Your task to perform on an android device: empty trash in the gmail app Image 0: 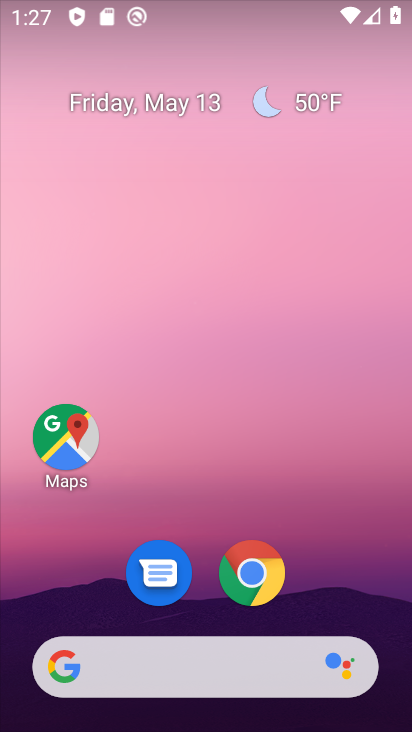
Step 0: drag from (323, 597) to (319, 189)
Your task to perform on an android device: empty trash in the gmail app Image 1: 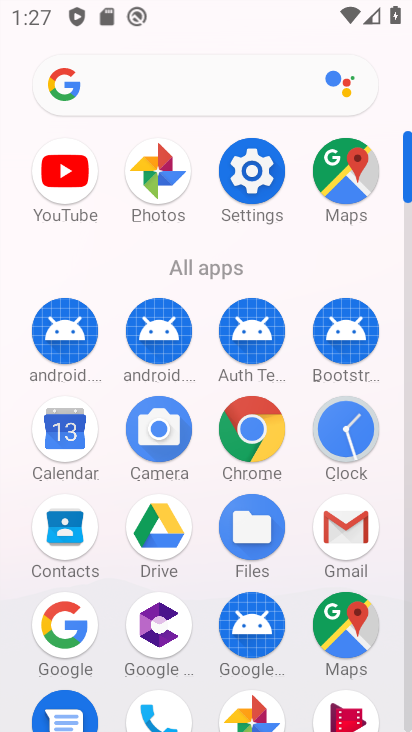
Step 1: drag from (202, 625) to (127, 156)
Your task to perform on an android device: empty trash in the gmail app Image 2: 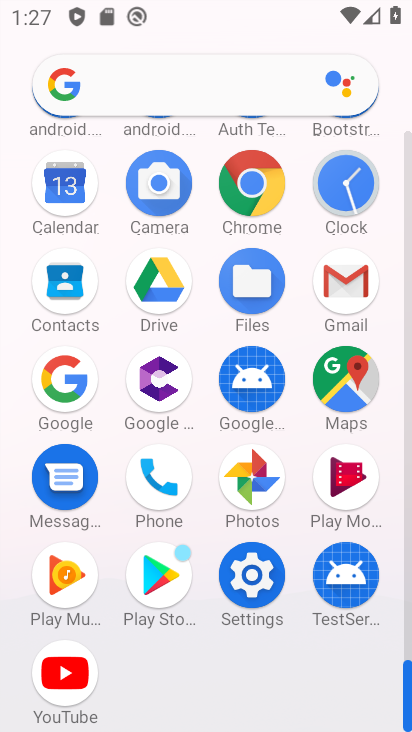
Step 2: click (248, 592)
Your task to perform on an android device: empty trash in the gmail app Image 3: 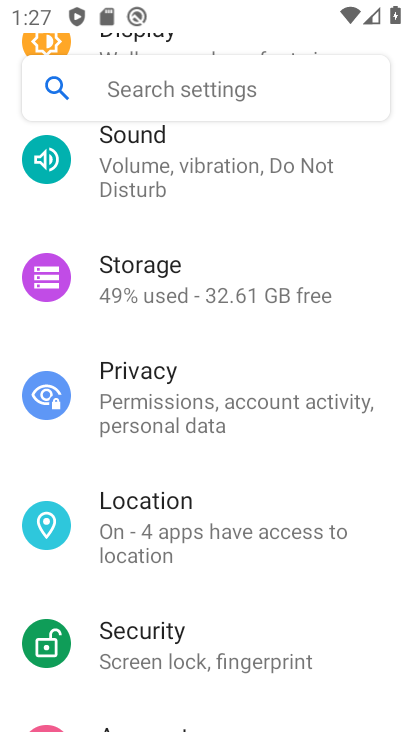
Step 3: drag from (145, 214) to (86, 503)
Your task to perform on an android device: empty trash in the gmail app Image 4: 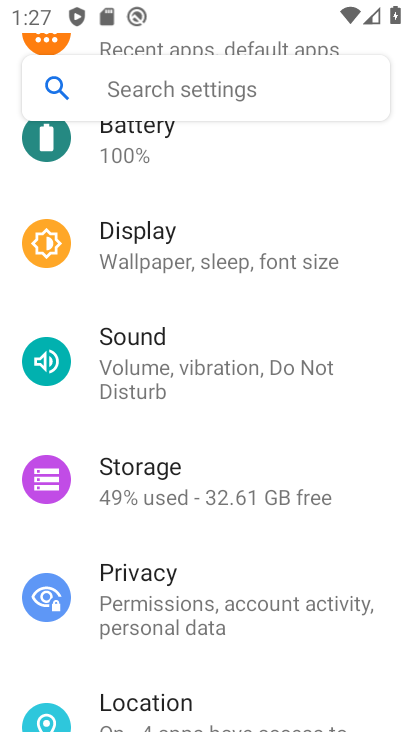
Step 4: drag from (226, 221) to (180, 680)
Your task to perform on an android device: empty trash in the gmail app Image 5: 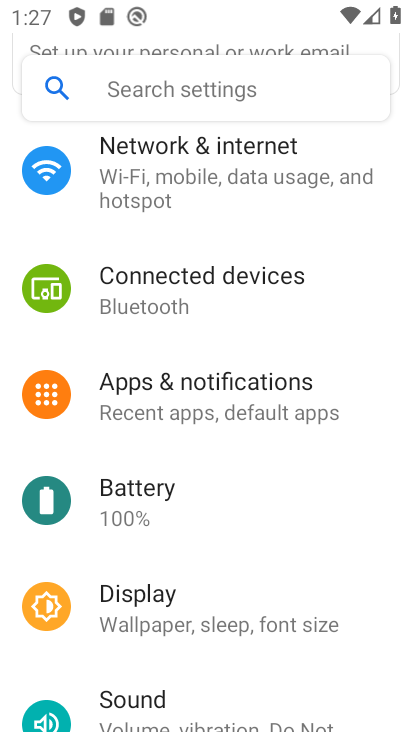
Step 5: press back button
Your task to perform on an android device: empty trash in the gmail app Image 6: 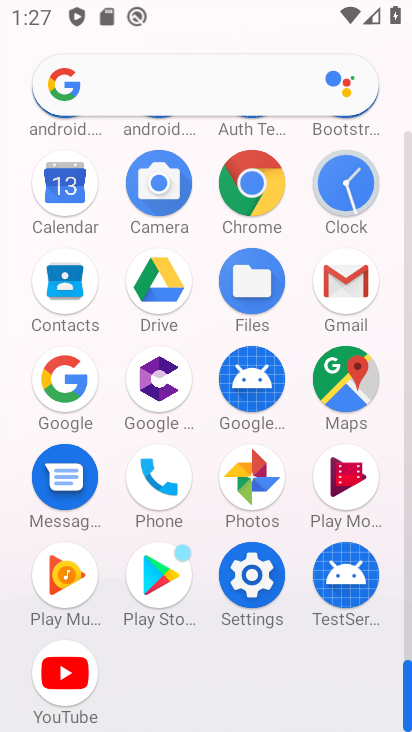
Step 6: press back button
Your task to perform on an android device: empty trash in the gmail app Image 7: 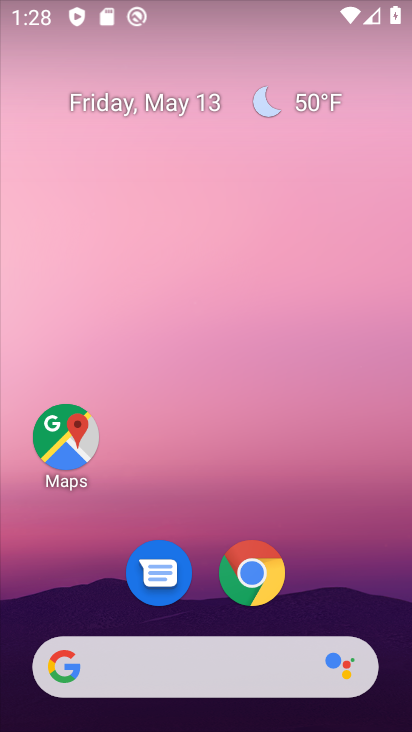
Step 7: click (225, 83)
Your task to perform on an android device: empty trash in the gmail app Image 8: 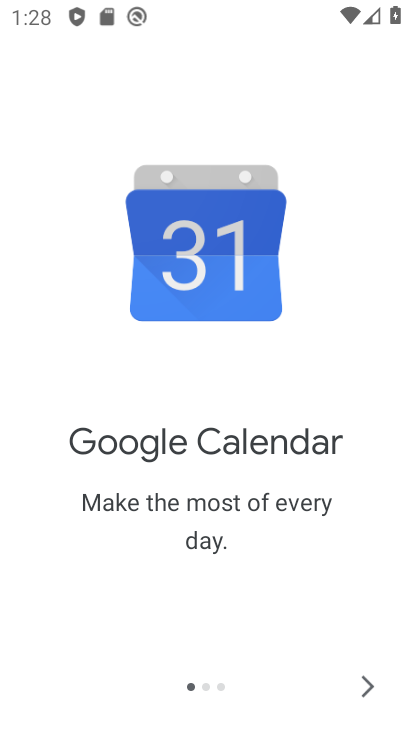
Step 8: press home button
Your task to perform on an android device: empty trash in the gmail app Image 9: 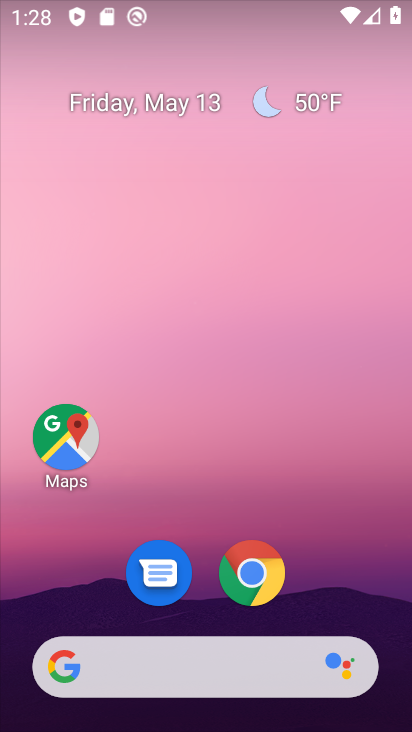
Step 9: drag from (308, 592) to (143, 1)
Your task to perform on an android device: empty trash in the gmail app Image 10: 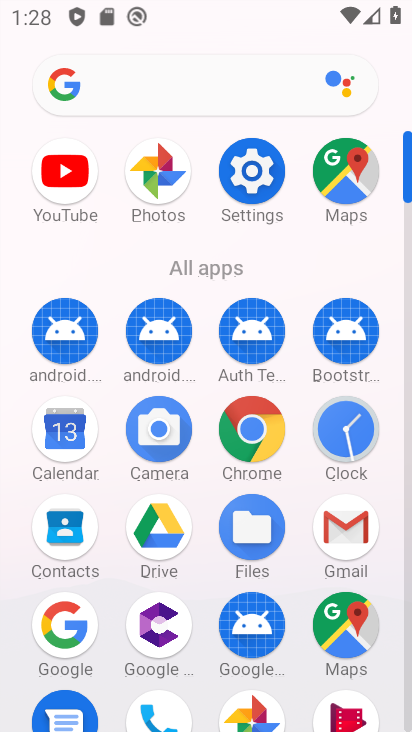
Step 10: click (340, 539)
Your task to perform on an android device: empty trash in the gmail app Image 11: 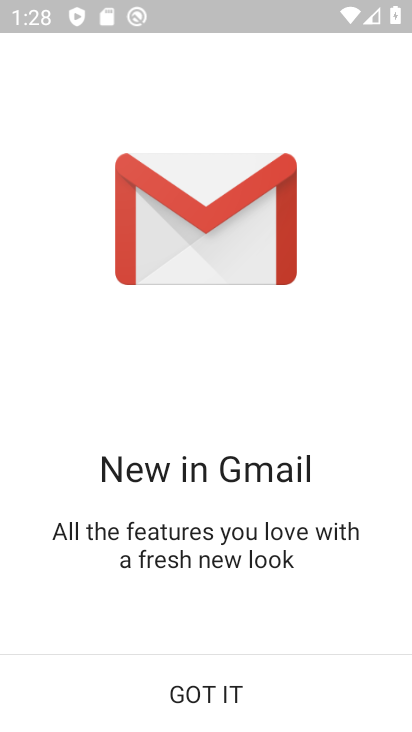
Step 11: click (192, 706)
Your task to perform on an android device: empty trash in the gmail app Image 12: 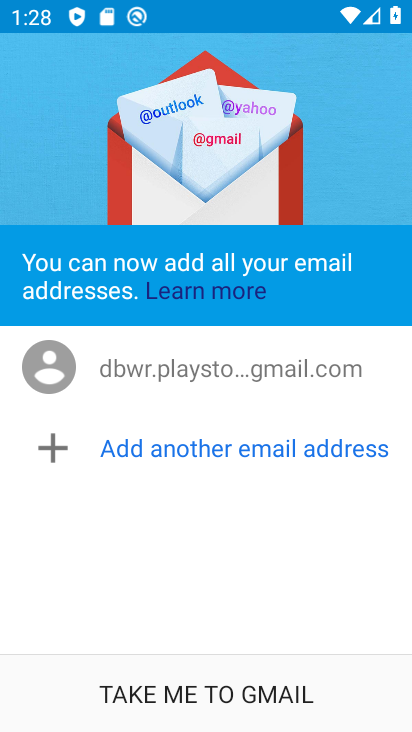
Step 12: click (202, 699)
Your task to perform on an android device: empty trash in the gmail app Image 13: 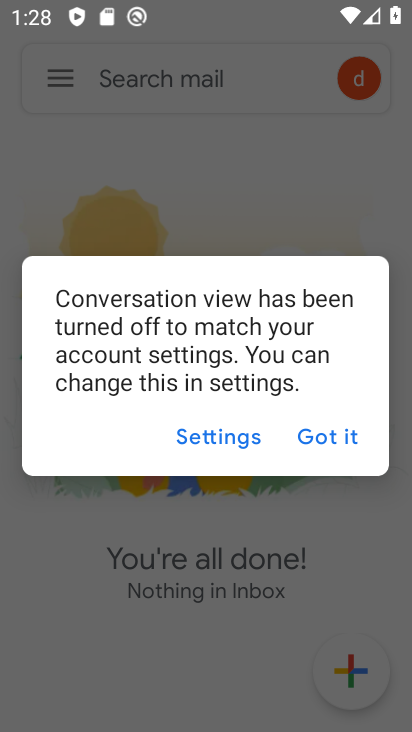
Step 13: click (342, 433)
Your task to perform on an android device: empty trash in the gmail app Image 14: 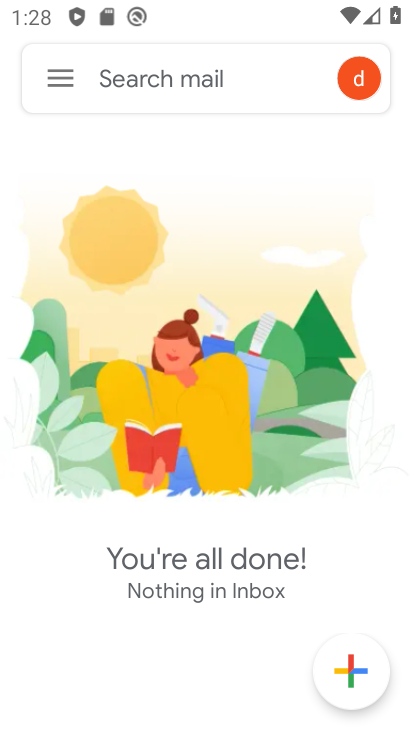
Step 14: click (71, 82)
Your task to perform on an android device: empty trash in the gmail app Image 15: 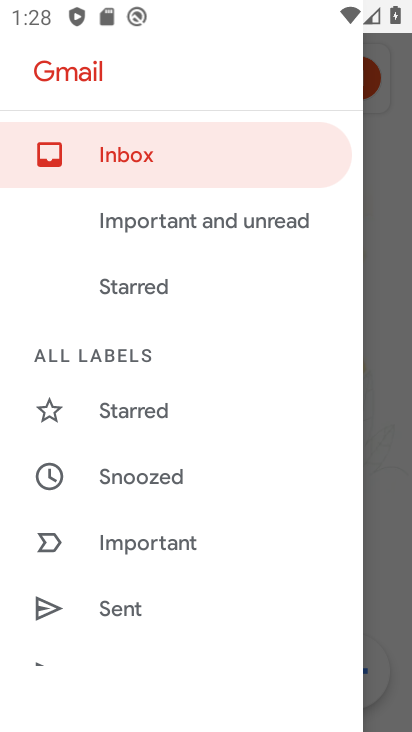
Step 15: click (163, 694)
Your task to perform on an android device: empty trash in the gmail app Image 16: 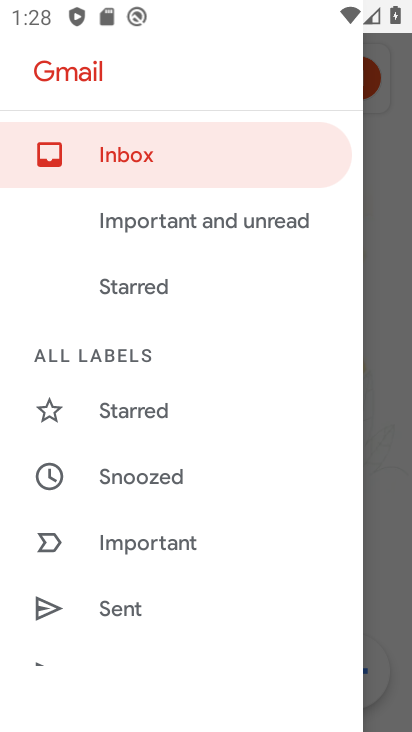
Step 16: drag from (183, 610) to (161, 178)
Your task to perform on an android device: empty trash in the gmail app Image 17: 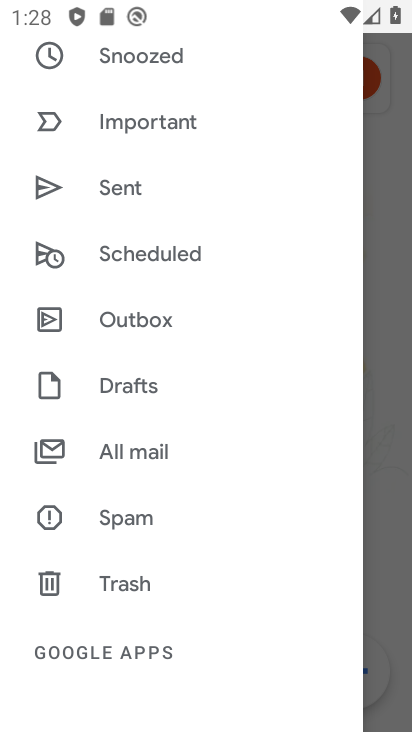
Step 17: click (122, 589)
Your task to perform on an android device: empty trash in the gmail app Image 18: 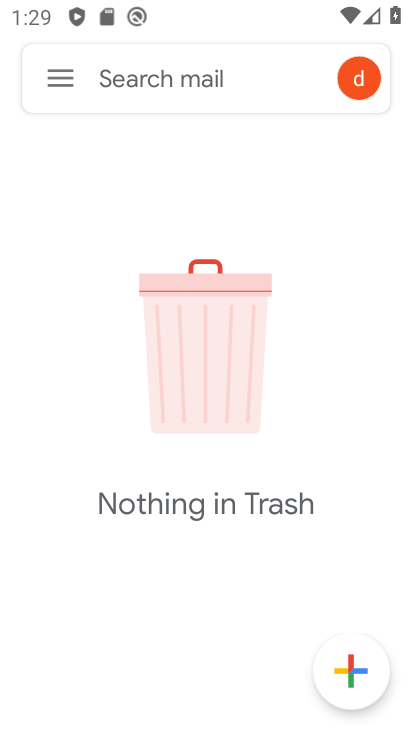
Step 18: task complete